Your task to perform on an android device: toggle pop-ups in chrome Image 0: 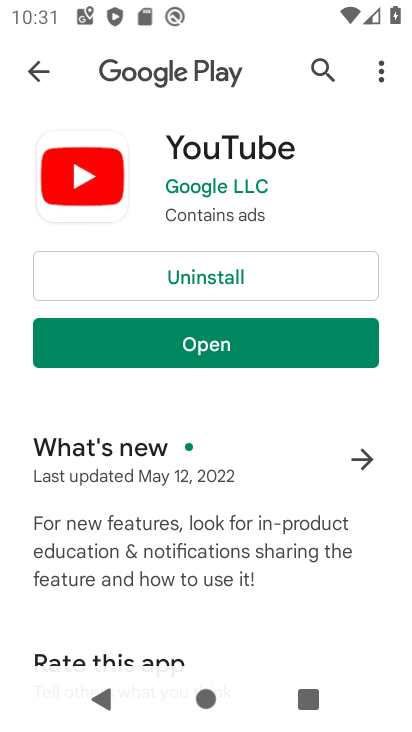
Step 0: press home button
Your task to perform on an android device: toggle pop-ups in chrome Image 1: 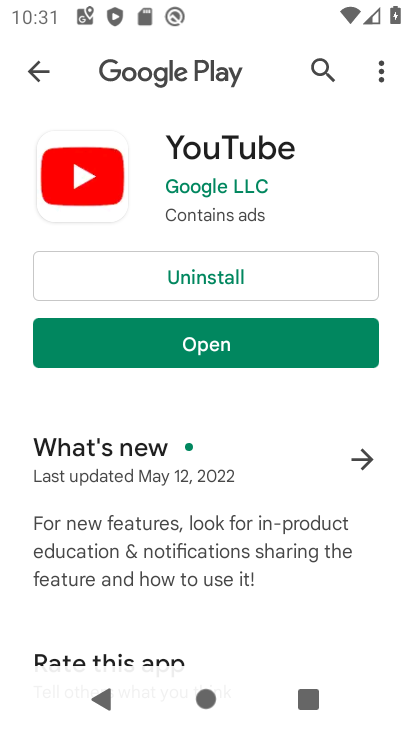
Step 1: press home button
Your task to perform on an android device: toggle pop-ups in chrome Image 2: 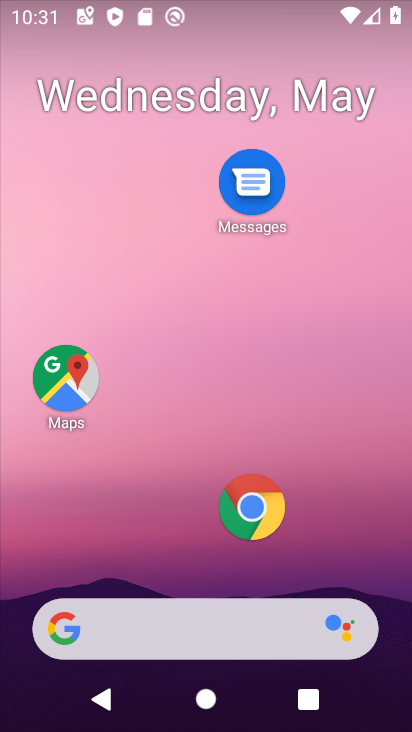
Step 2: click (249, 500)
Your task to perform on an android device: toggle pop-ups in chrome Image 3: 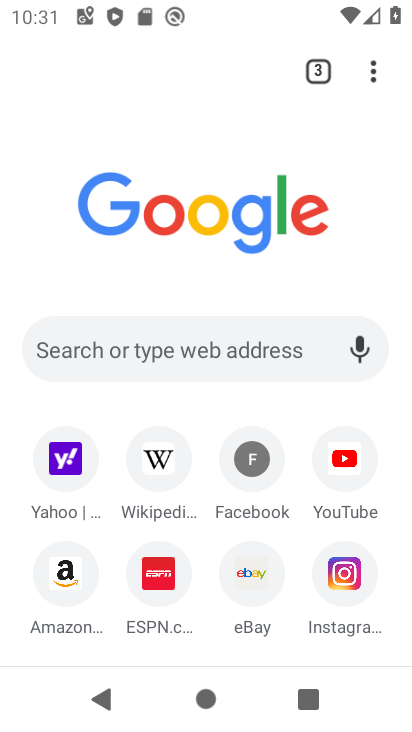
Step 3: click (370, 67)
Your task to perform on an android device: toggle pop-ups in chrome Image 4: 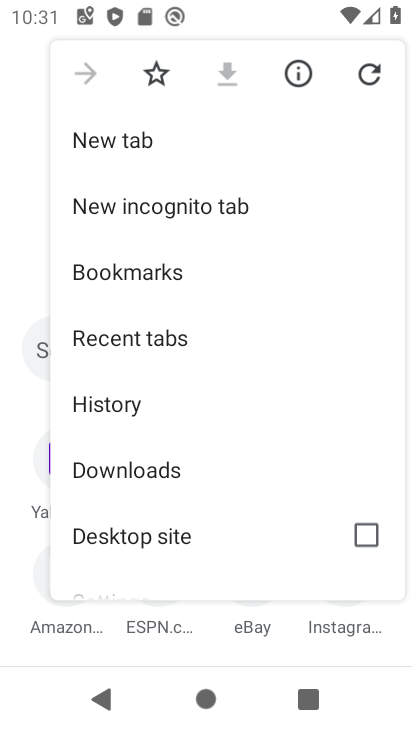
Step 4: drag from (195, 529) to (220, 158)
Your task to perform on an android device: toggle pop-ups in chrome Image 5: 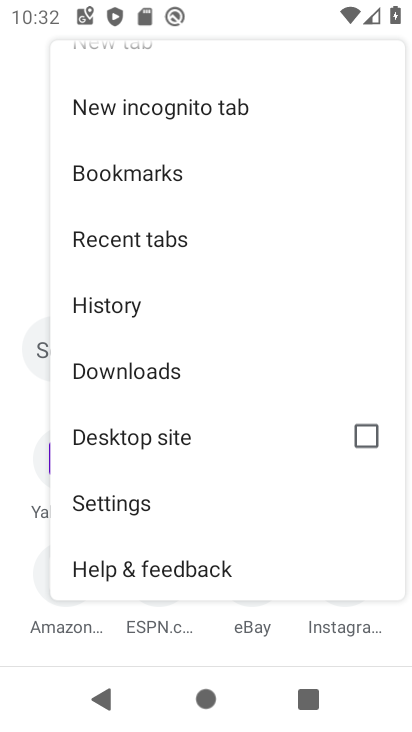
Step 5: click (164, 495)
Your task to perform on an android device: toggle pop-ups in chrome Image 6: 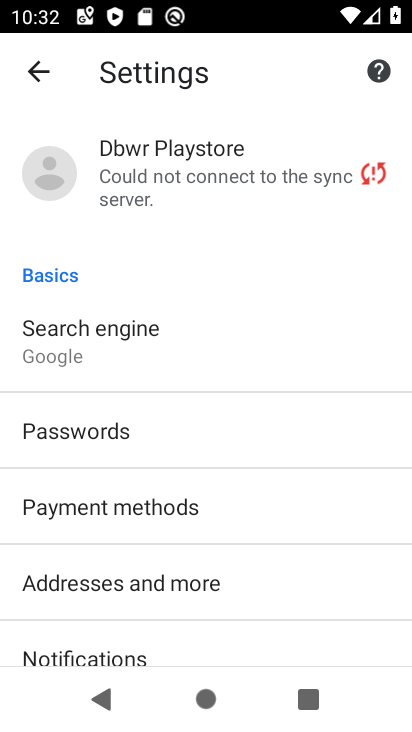
Step 6: drag from (234, 628) to (281, 338)
Your task to perform on an android device: toggle pop-ups in chrome Image 7: 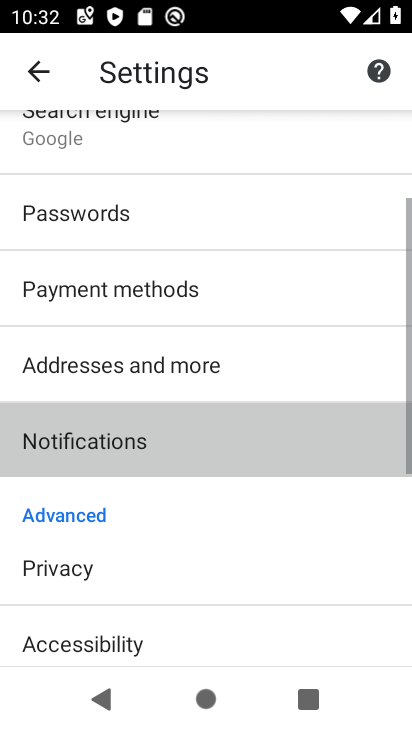
Step 7: click (288, 301)
Your task to perform on an android device: toggle pop-ups in chrome Image 8: 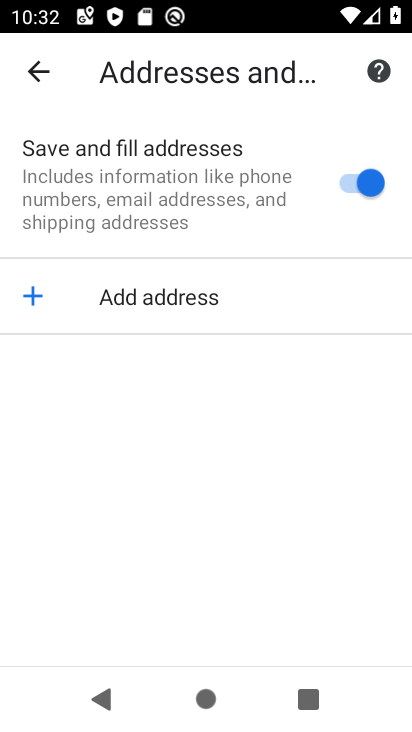
Step 8: click (38, 73)
Your task to perform on an android device: toggle pop-ups in chrome Image 9: 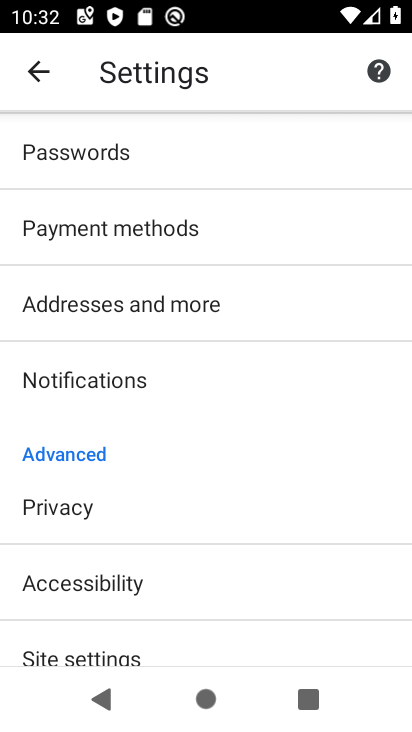
Step 9: drag from (207, 618) to (235, 75)
Your task to perform on an android device: toggle pop-ups in chrome Image 10: 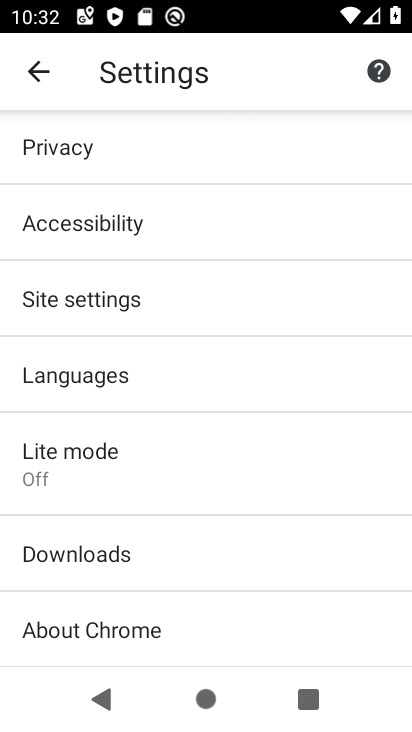
Step 10: click (154, 297)
Your task to perform on an android device: toggle pop-ups in chrome Image 11: 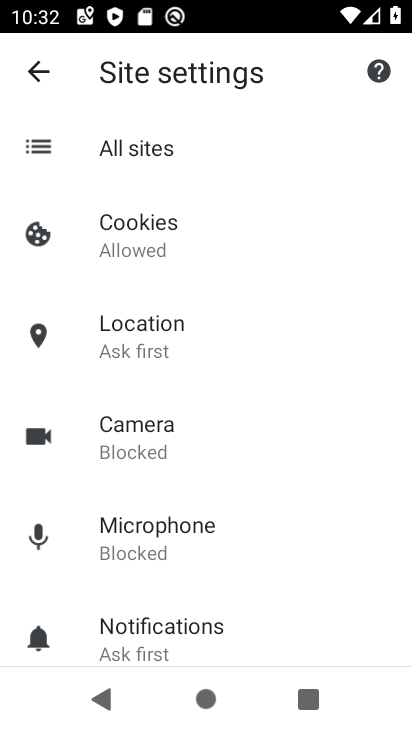
Step 11: drag from (218, 633) to (227, 128)
Your task to perform on an android device: toggle pop-ups in chrome Image 12: 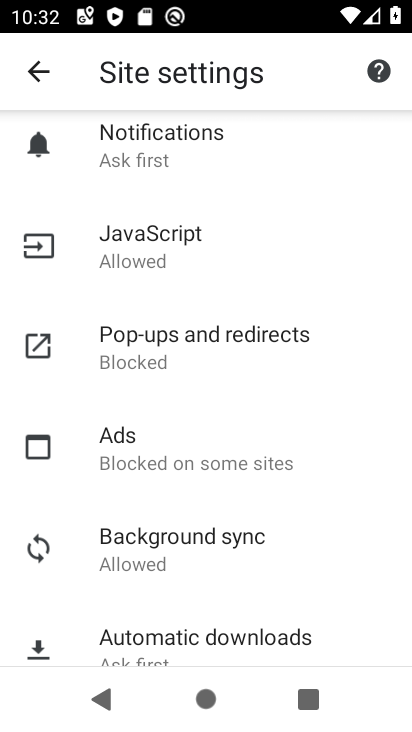
Step 12: click (72, 343)
Your task to perform on an android device: toggle pop-ups in chrome Image 13: 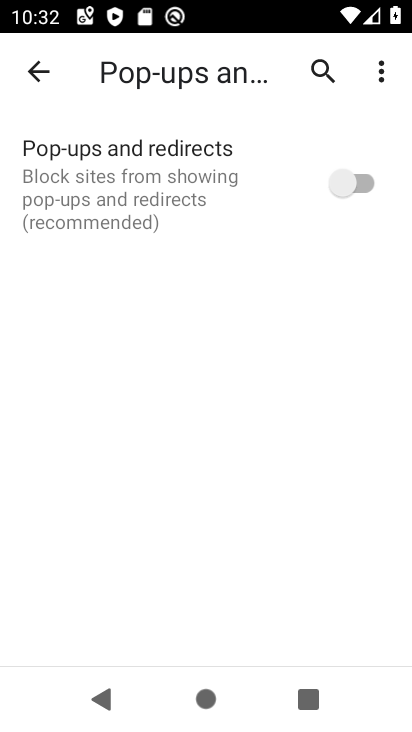
Step 13: click (365, 171)
Your task to perform on an android device: toggle pop-ups in chrome Image 14: 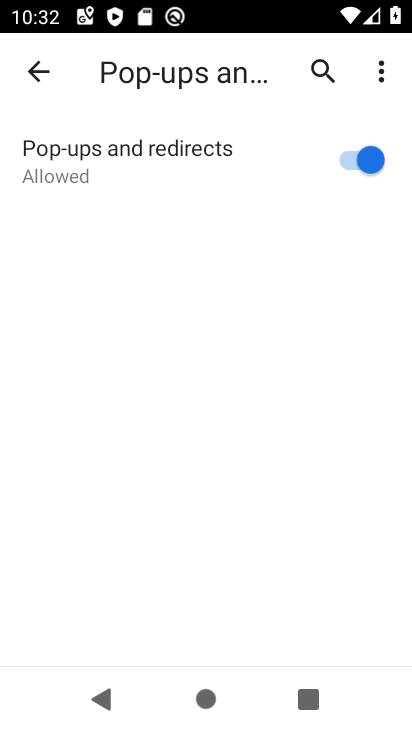
Step 14: task complete